Your task to perform on an android device: Go to Google Image 0: 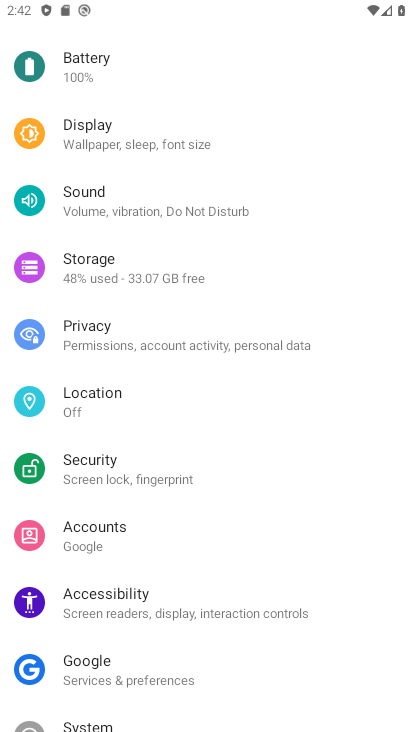
Step 0: press home button
Your task to perform on an android device: Go to Google Image 1: 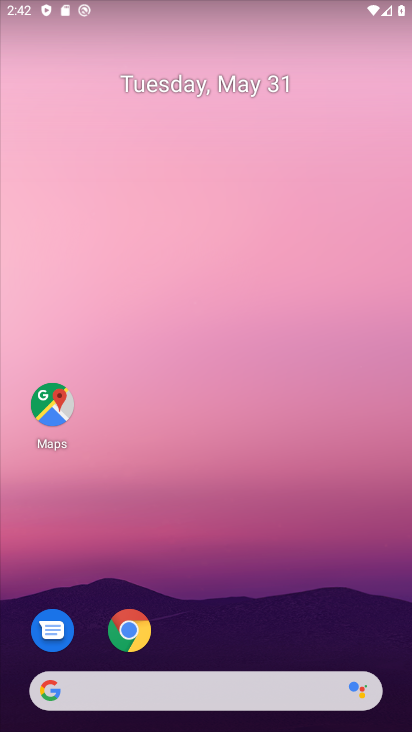
Step 1: drag from (282, 589) to (309, 96)
Your task to perform on an android device: Go to Google Image 2: 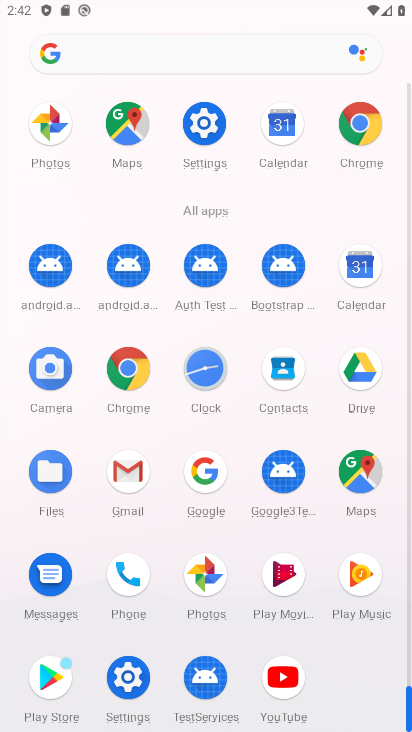
Step 2: click (201, 461)
Your task to perform on an android device: Go to Google Image 3: 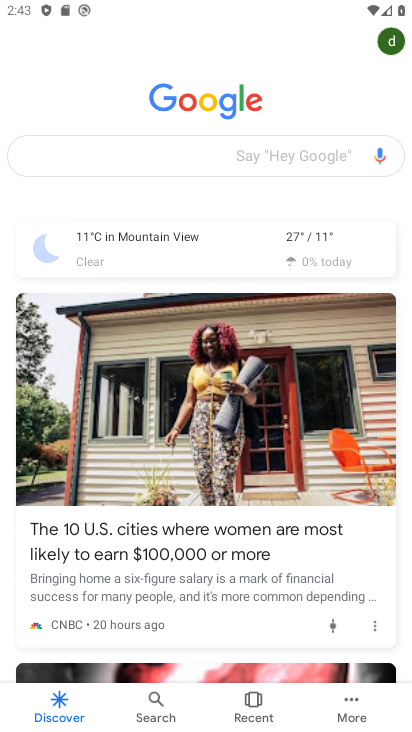
Step 3: task complete